Your task to perform on an android device: Open wifi settings Image 0: 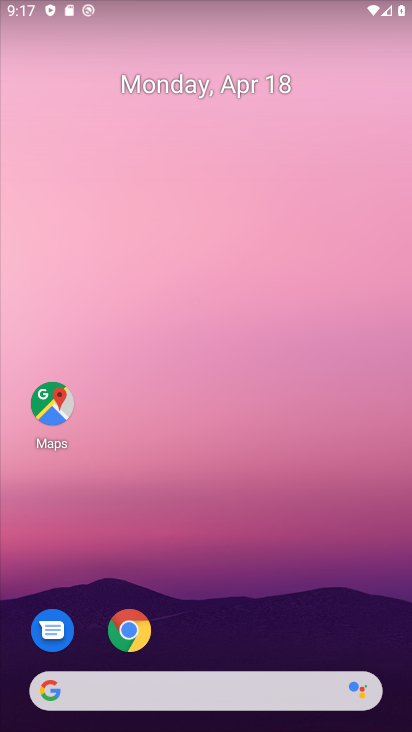
Step 0: drag from (202, 660) to (357, 125)
Your task to perform on an android device: Open wifi settings Image 1: 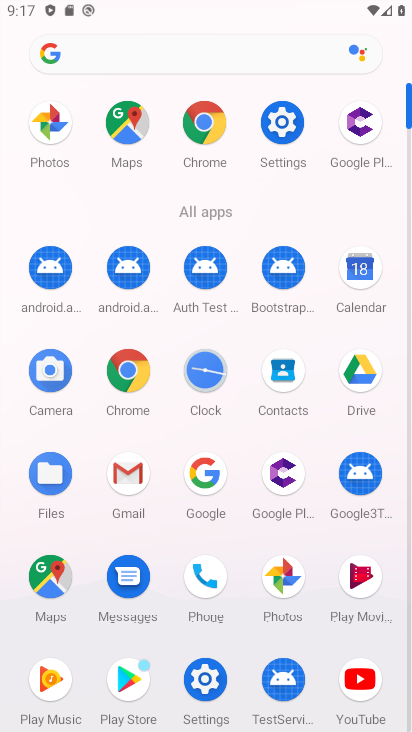
Step 1: click (192, 681)
Your task to perform on an android device: Open wifi settings Image 2: 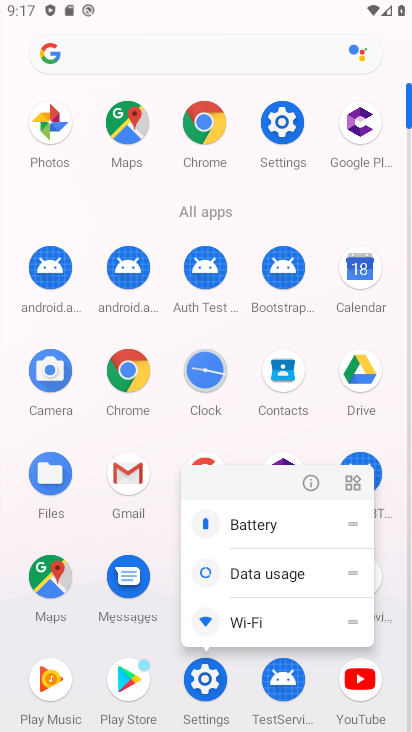
Step 2: click (191, 688)
Your task to perform on an android device: Open wifi settings Image 3: 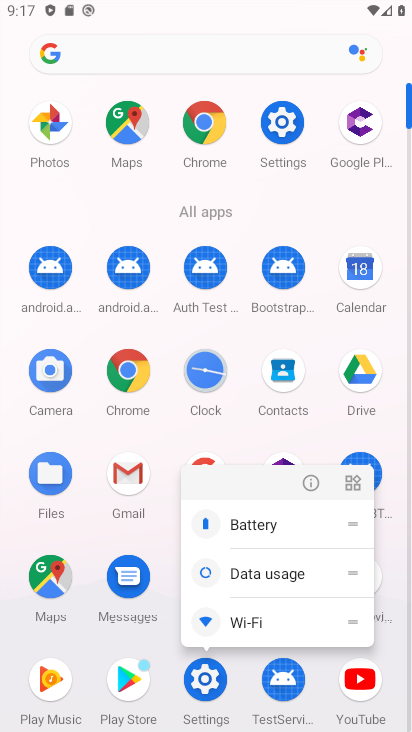
Step 3: click (213, 671)
Your task to perform on an android device: Open wifi settings Image 4: 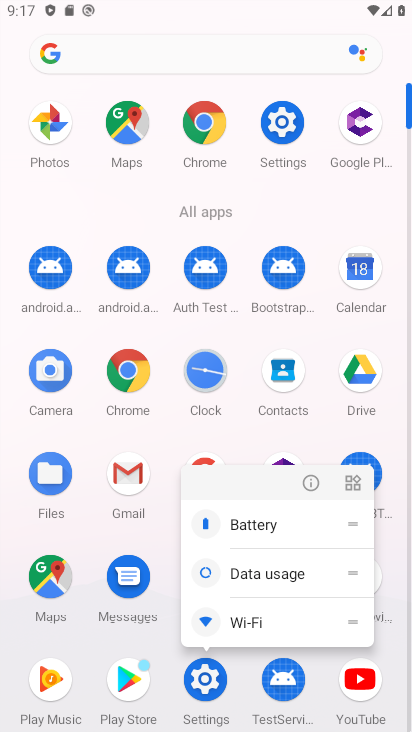
Step 4: click (206, 685)
Your task to perform on an android device: Open wifi settings Image 5: 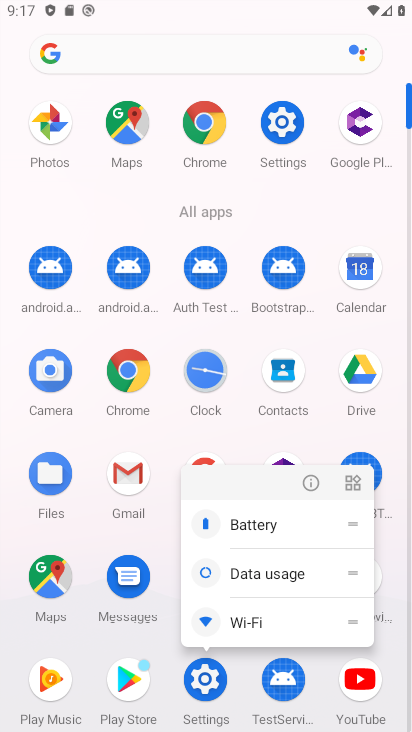
Step 5: click (211, 687)
Your task to perform on an android device: Open wifi settings Image 6: 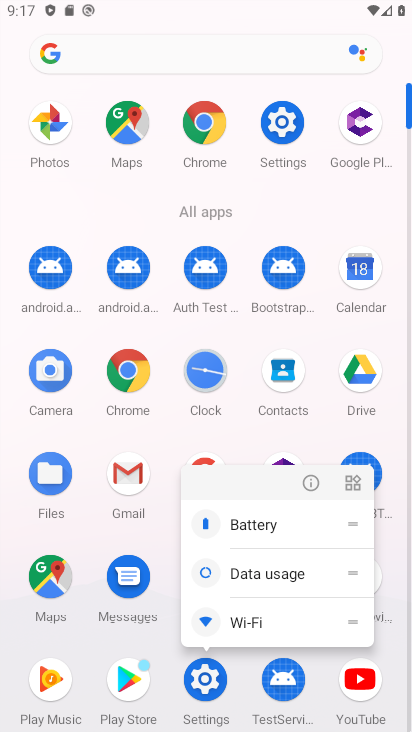
Step 6: click (196, 693)
Your task to perform on an android device: Open wifi settings Image 7: 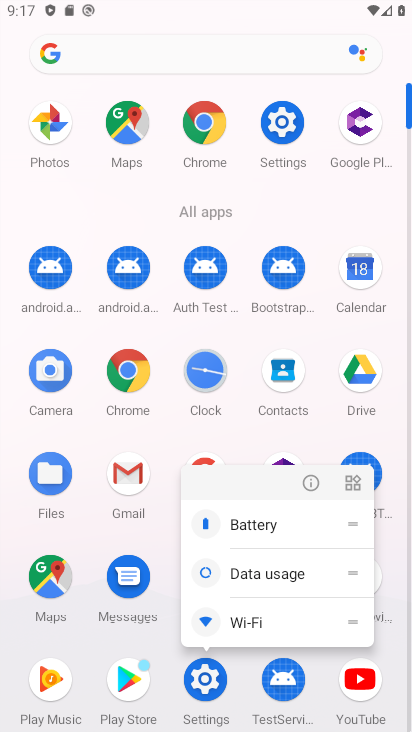
Step 7: click (195, 665)
Your task to perform on an android device: Open wifi settings Image 8: 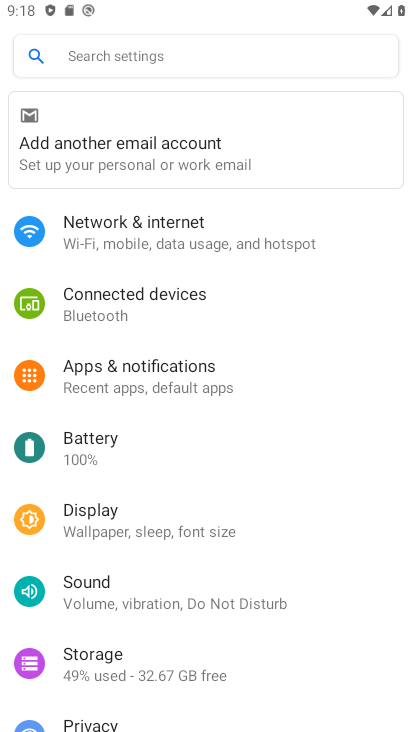
Step 8: click (227, 235)
Your task to perform on an android device: Open wifi settings Image 9: 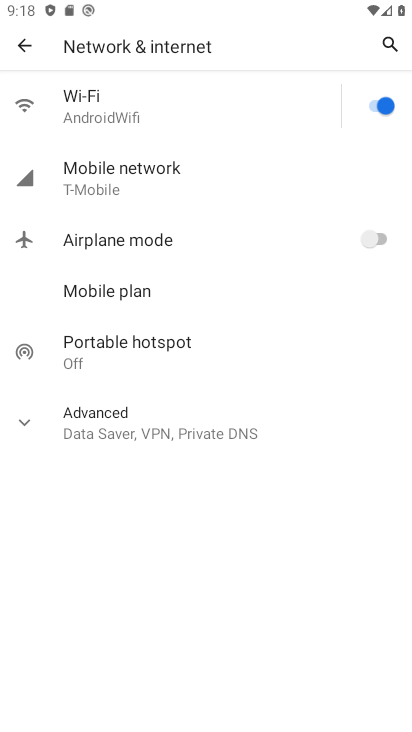
Step 9: click (153, 112)
Your task to perform on an android device: Open wifi settings Image 10: 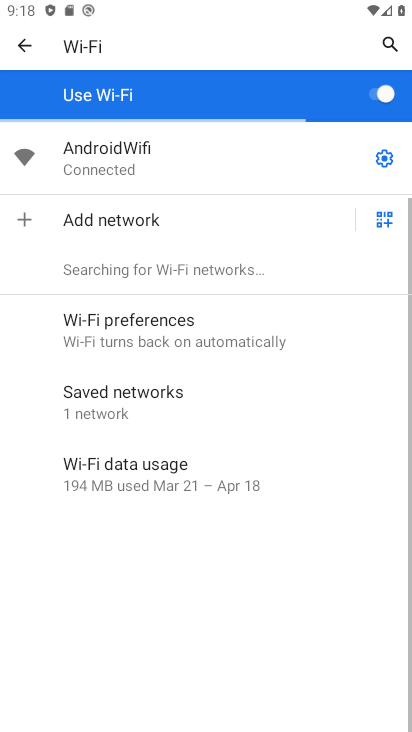
Step 10: task complete